Your task to perform on an android device: Show me recent news Image 0: 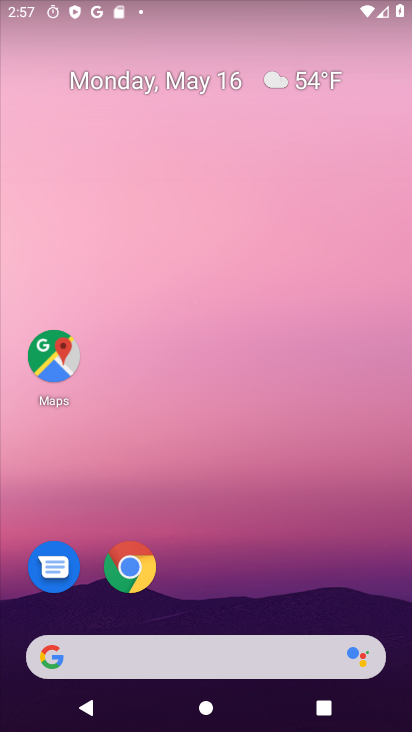
Step 0: drag from (256, 596) to (280, 126)
Your task to perform on an android device: Show me recent news Image 1: 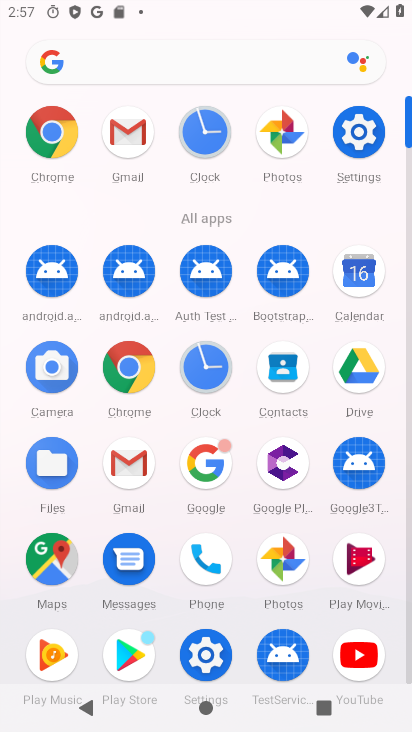
Step 1: click (201, 463)
Your task to perform on an android device: Show me recent news Image 2: 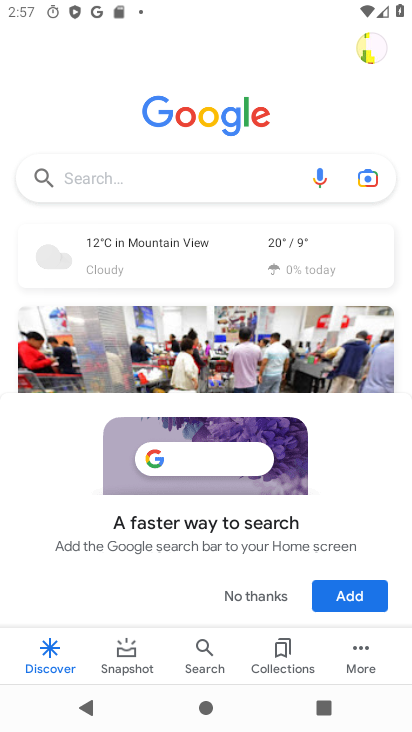
Step 2: click (164, 184)
Your task to perform on an android device: Show me recent news Image 3: 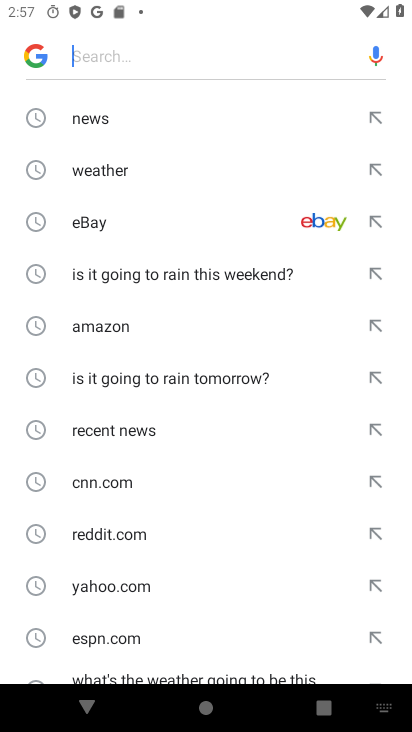
Step 3: click (112, 431)
Your task to perform on an android device: Show me recent news Image 4: 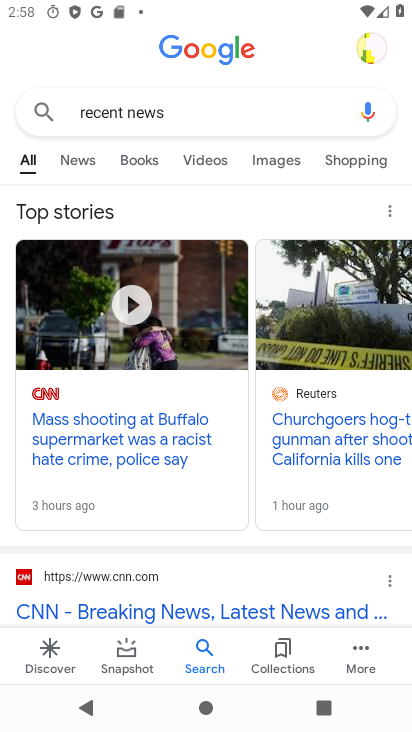
Step 4: task complete